Your task to perform on an android device: When is my next meeting? Image 0: 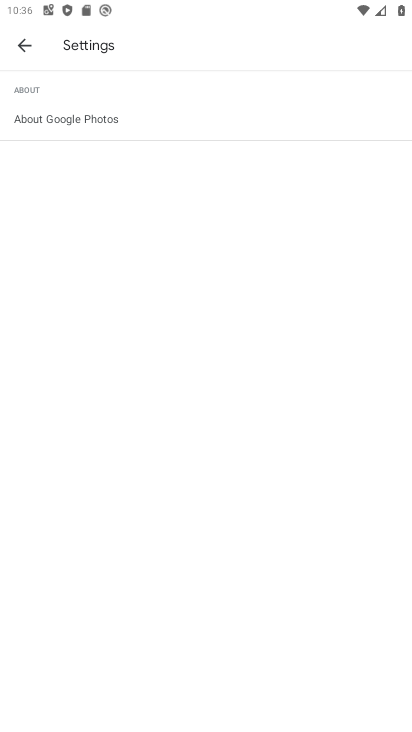
Step 0: press home button
Your task to perform on an android device: When is my next meeting? Image 1: 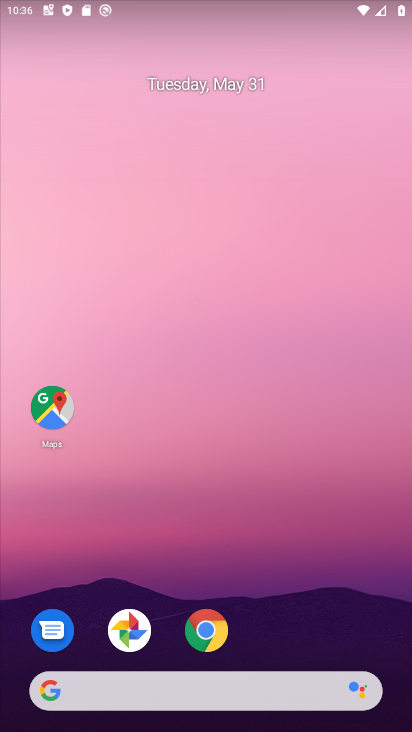
Step 1: drag from (280, 613) to (300, 160)
Your task to perform on an android device: When is my next meeting? Image 2: 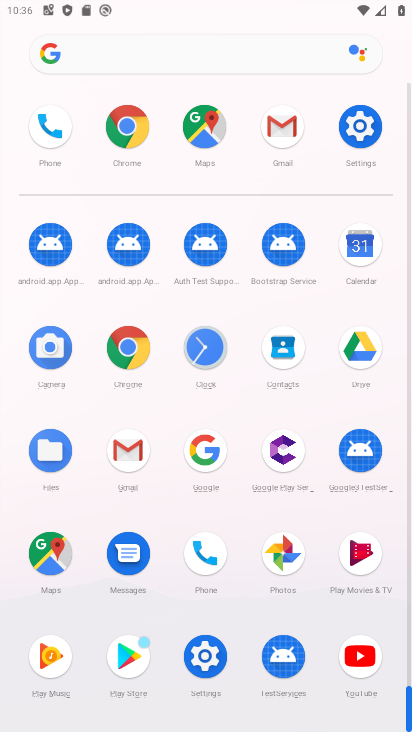
Step 2: click (363, 257)
Your task to perform on an android device: When is my next meeting? Image 3: 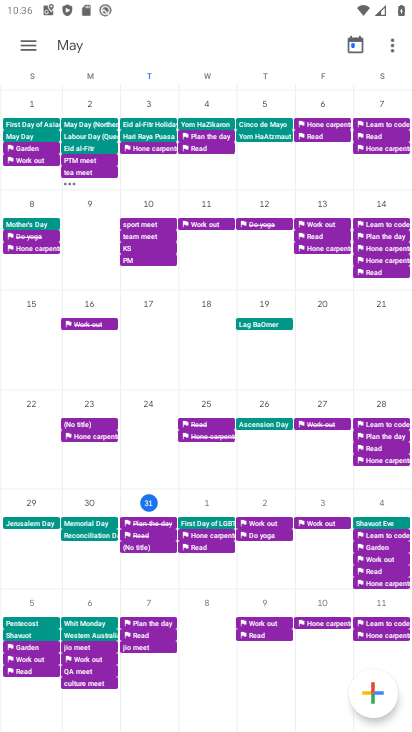
Step 3: click (25, 42)
Your task to perform on an android device: When is my next meeting? Image 4: 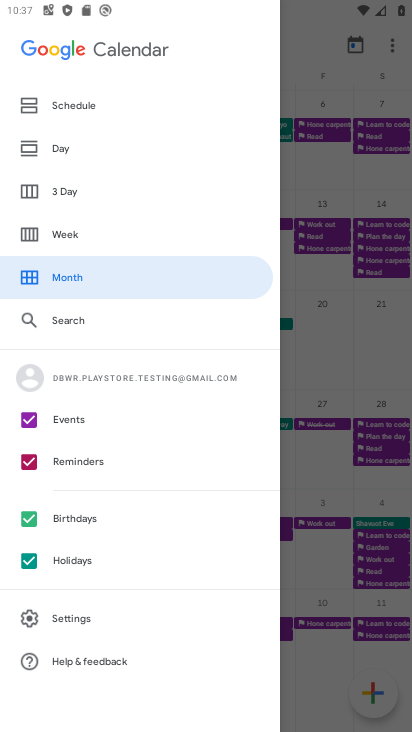
Step 4: click (103, 613)
Your task to perform on an android device: When is my next meeting? Image 5: 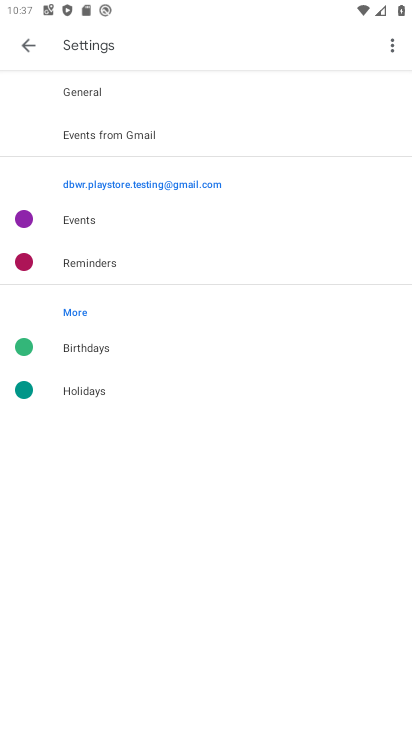
Step 5: click (28, 44)
Your task to perform on an android device: When is my next meeting? Image 6: 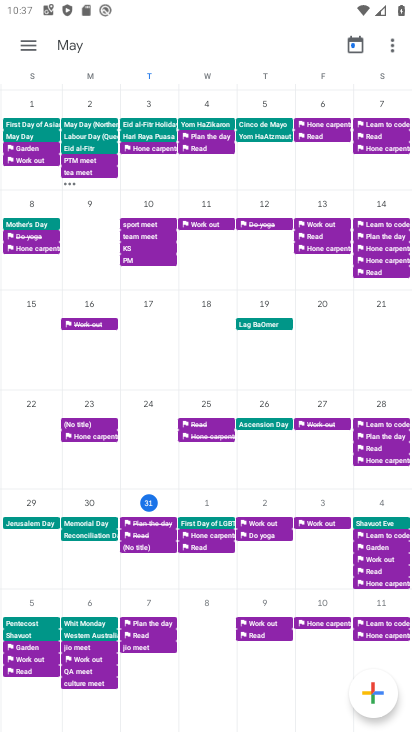
Step 6: drag from (346, 199) to (9, 229)
Your task to perform on an android device: When is my next meeting? Image 7: 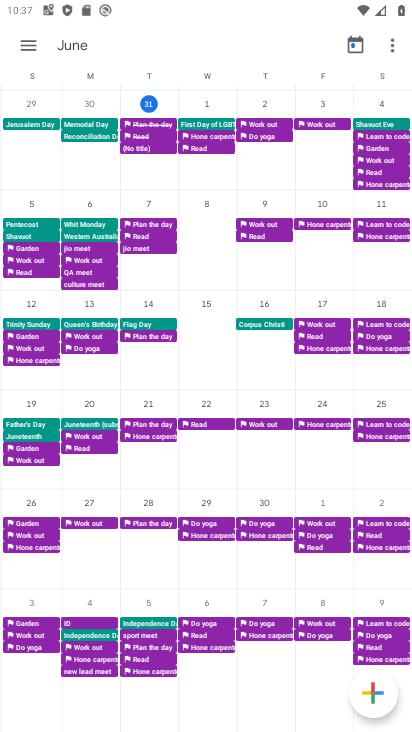
Step 7: click (191, 116)
Your task to perform on an android device: When is my next meeting? Image 8: 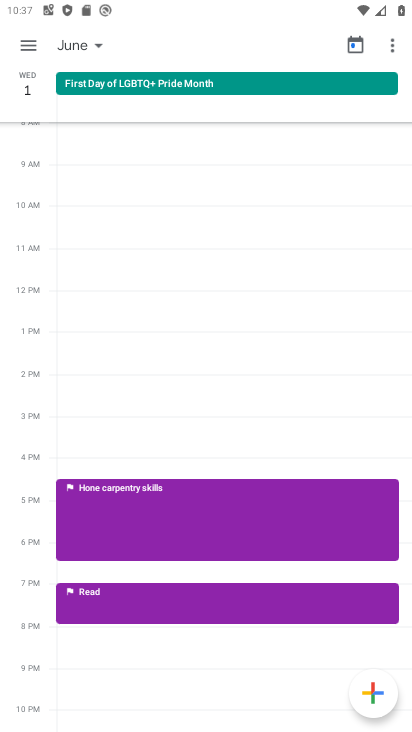
Step 8: task complete